Your task to perform on an android device: Search for lenovo thinkpad on costco, select the first entry, add it to the cart, then select checkout. Image 0: 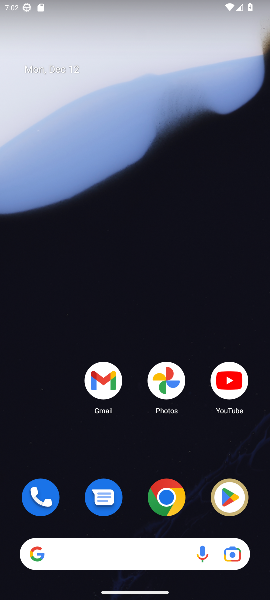
Step 0: press home button
Your task to perform on an android device: Search for lenovo thinkpad on costco, select the first entry, add it to the cart, then select checkout. Image 1: 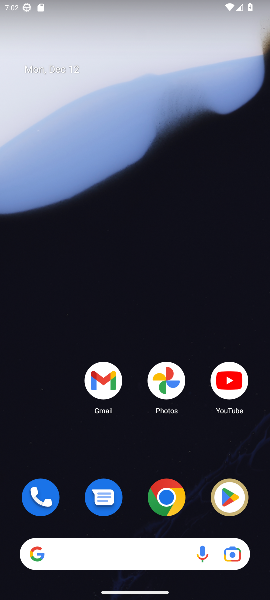
Step 1: drag from (56, 446) to (61, 58)
Your task to perform on an android device: Search for lenovo thinkpad on costco, select the first entry, add it to the cart, then select checkout. Image 2: 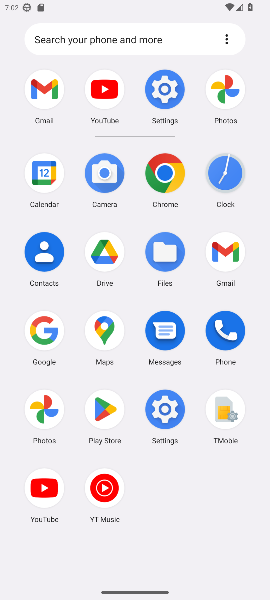
Step 2: click (40, 329)
Your task to perform on an android device: Search for lenovo thinkpad on costco, select the first entry, add it to the cart, then select checkout. Image 3: 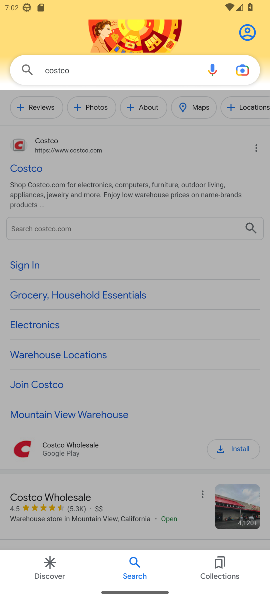
Step 3: click (105, 70)
Your task to perform on an android device: Search for lenovo thinkpad on costco, select the first entry, add it to the cart, then select checkout. Image 4: 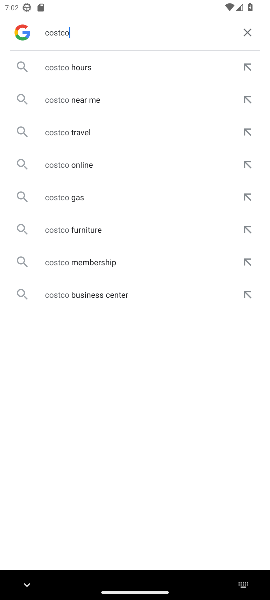
Step 4: click (244, 31)
Your task to perform on an android device: Search for lenovo thinkpad on costco, select the first entry, add it to the cart, then select checkout. Image 5: 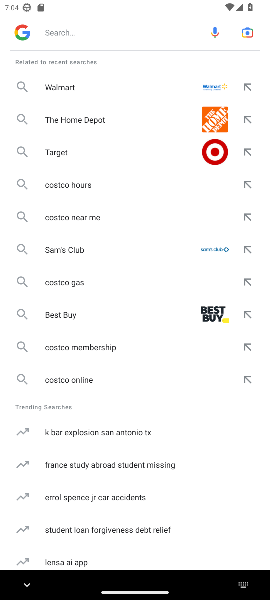
Step 5: type "costco"
Your task to perform on an android device: Search for lenovo thinkpad on costco, select the first entry, add it to the cart, then select checkout. Image 6: 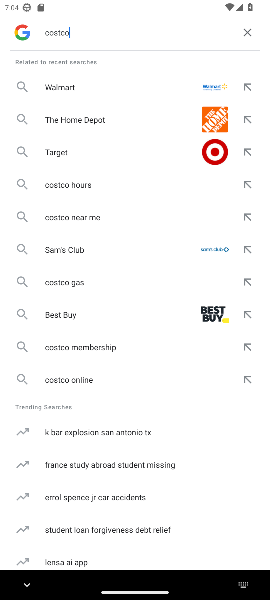
Step 6: press enter
Your task to perform on an android device: Search for lenovo thinkpad on costco, select the first entry, add it to the cart, then select checkout. Image 7: 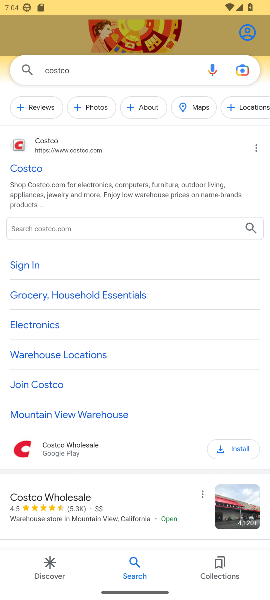
Step 7: click (28, 166)
Your task to perform on an android device: Search for lenovo thinkpad on costco, select the first entry, add it to the cart, then select checkout. Image 8: 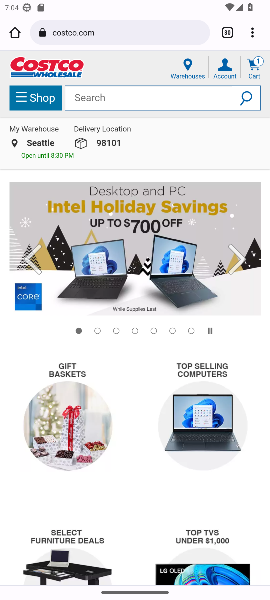
Step 8: click (92, 97)
Your task to perform on an android device: Search for lenovo thinkpad on costco, select the first entry, add it to the cart, then select checkout. Image 9: 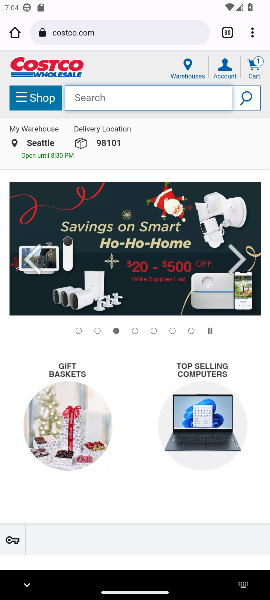
Step 9: type "lenovo thinkpad"
Your task to perform on an android device: Search for lenovo thinkpad on costco, select the first entry, add it to the cart, then select checkout. Image 10: 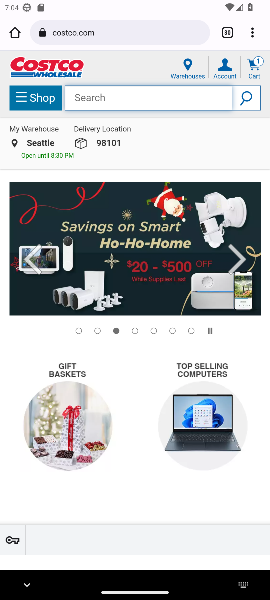
Step 10: press enter
Your task to perform on an android device: Search for lenovo thinkpad on costco, select the first entry, add it to the cart, then select checkout. Image 11: 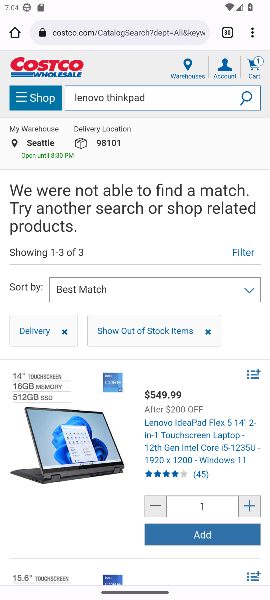
Step 11: task complete